Your task to perform on an android device: Go to Maps Image 0: 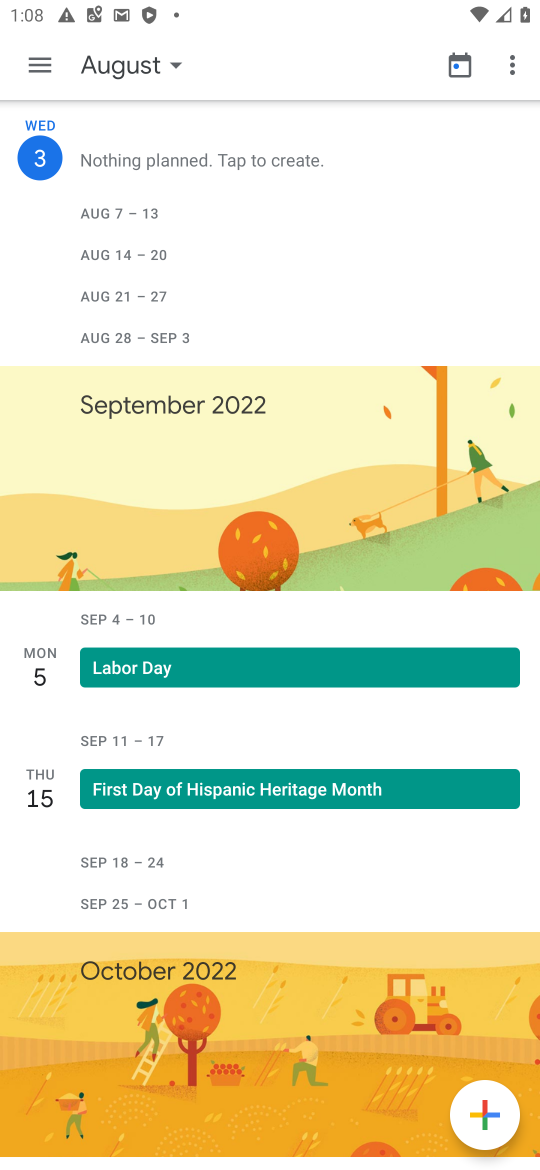
Step 0: press home button
Your task to perform on an android device: Go to Maps Image 1: 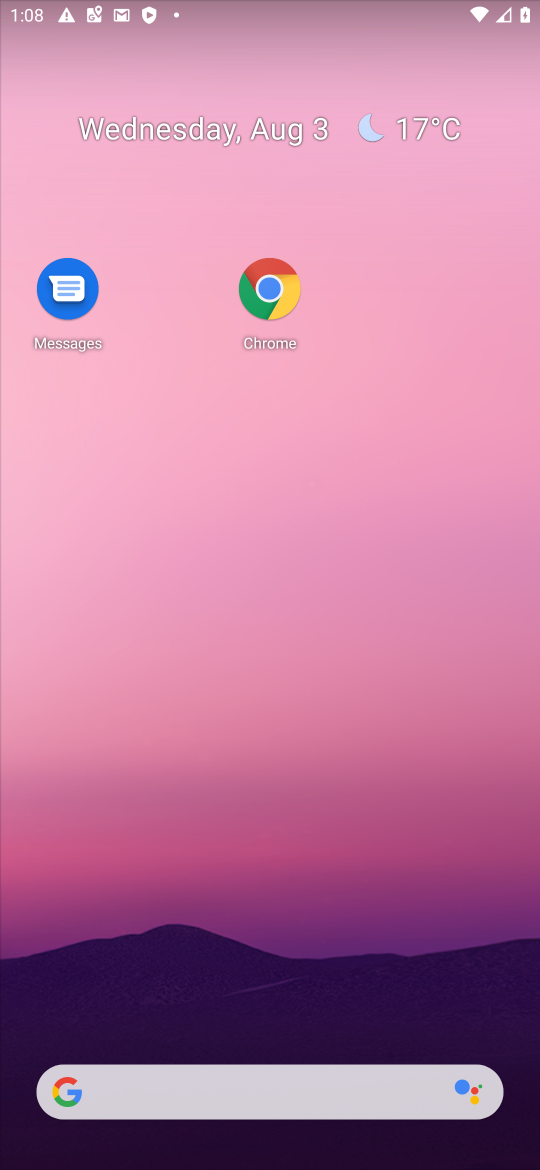
Step 1: drag from (238, 989) to (277, 278)
Your task to perform on an android device: Go to Maps Image 2: 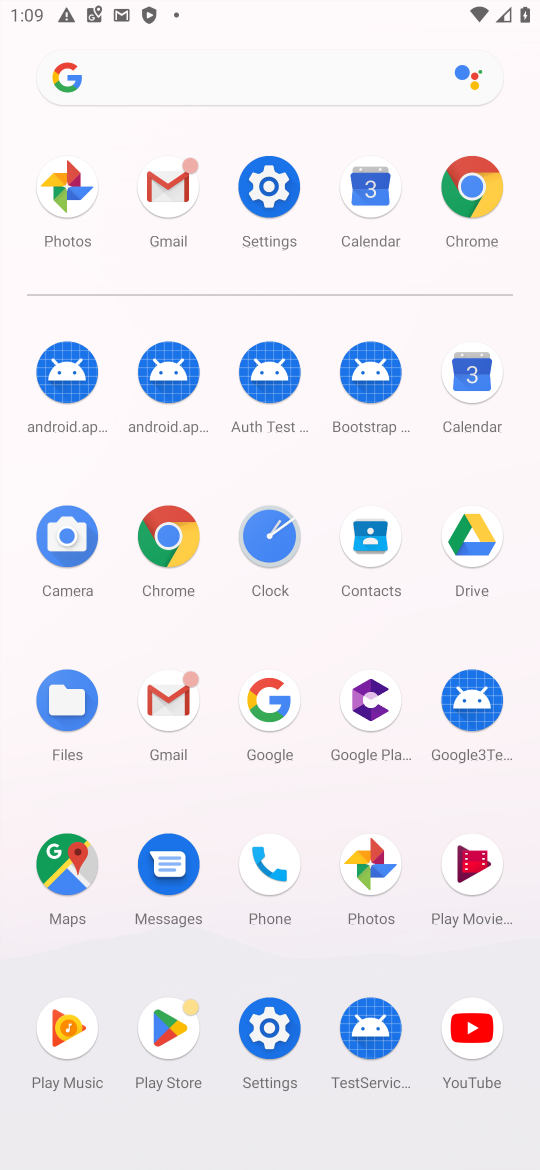
Step 2: click (87, 900)
Your task to perform on an android device: Go to Maps Image 3: 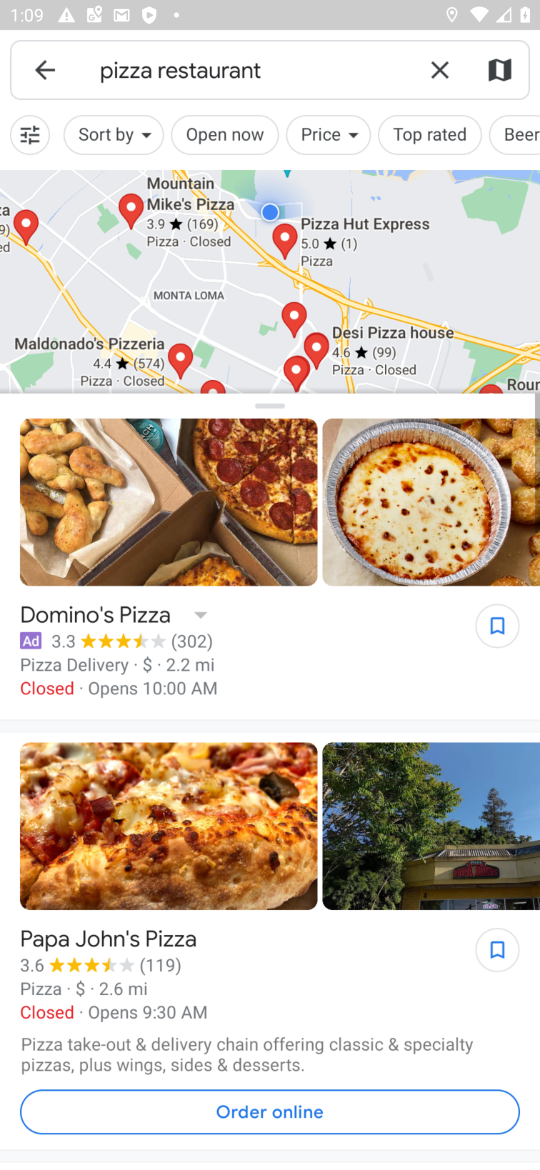
Step 3: task complete